Your task to perform on an android device: Open Google Maps Image 0: 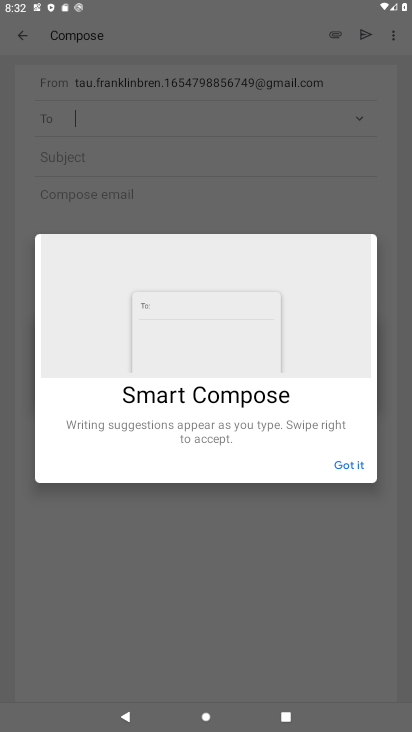
Step 0: press home button
Your task to perform on an android device: Open Google Maps Image 1: 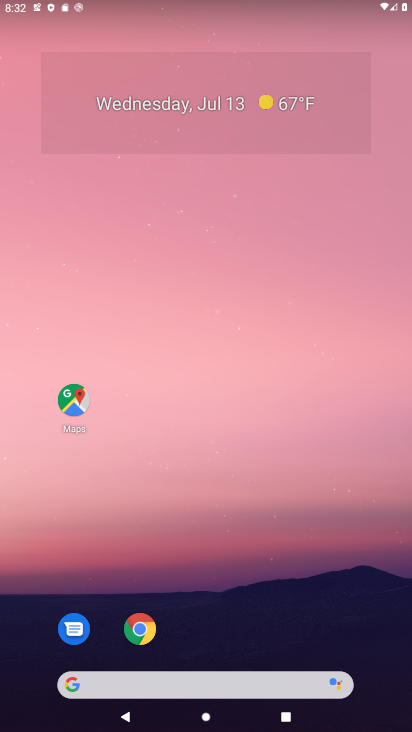
Step 1: click (68, 392)
Your task to perform on an android device: Open Google Maps Image 2: 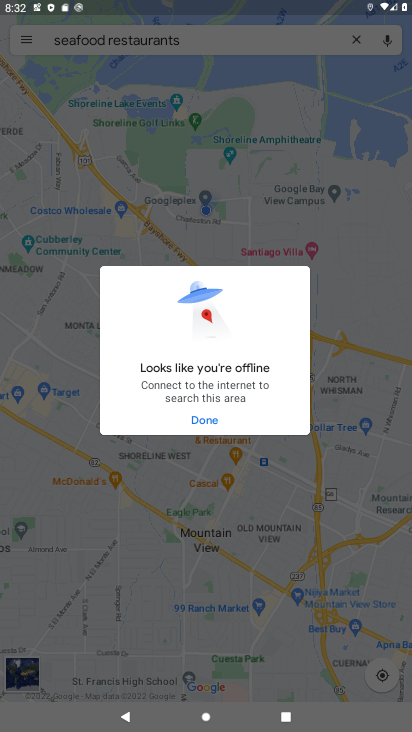
Step 2: click (214, 425)
Your task to perform on an android device: Open Google Maps Image 3: 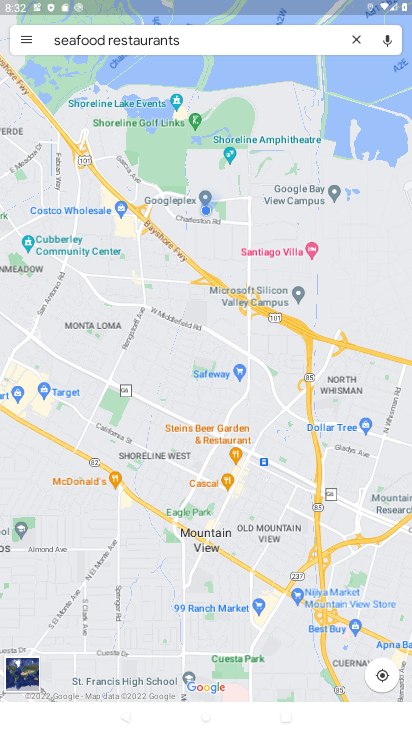
Step 3: task complete